Your task to perform on an android device: Open notification settings Image 0: 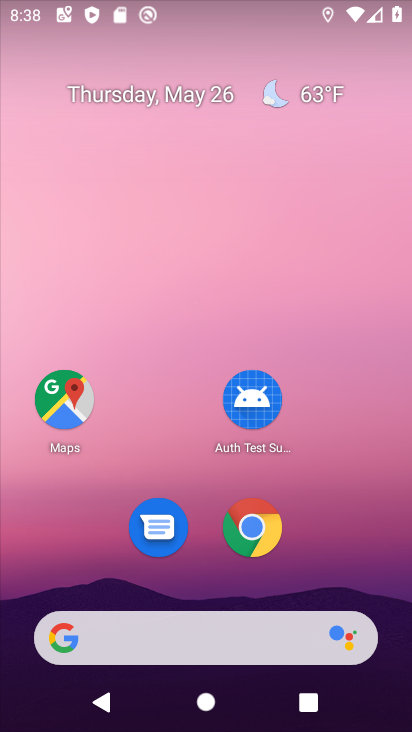
Step 0: drag from (374, 472) to (410, 508)
Your task to perform on an android device: Open notification settings Image 1: 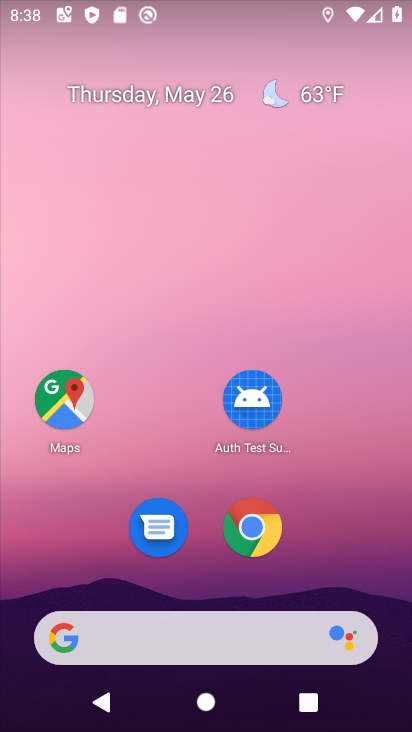
Step 1: drag from (344, 482) to (302, 46)
Your task to perform on an android device: Open notification settings Image 2: 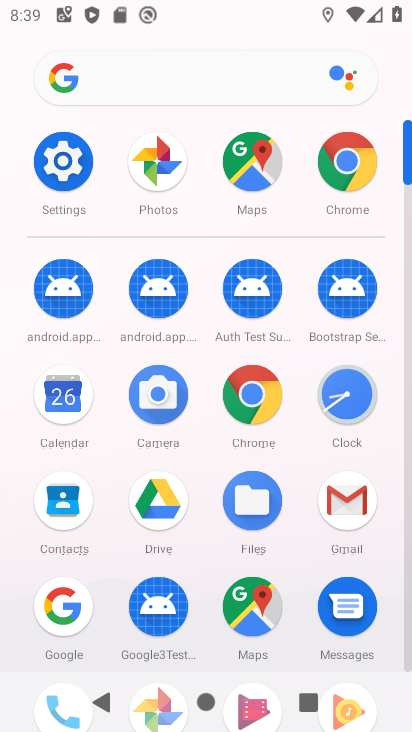
Step 2: click (43, 153)
Your task to perform on an android device: Open notification settings Image 3: 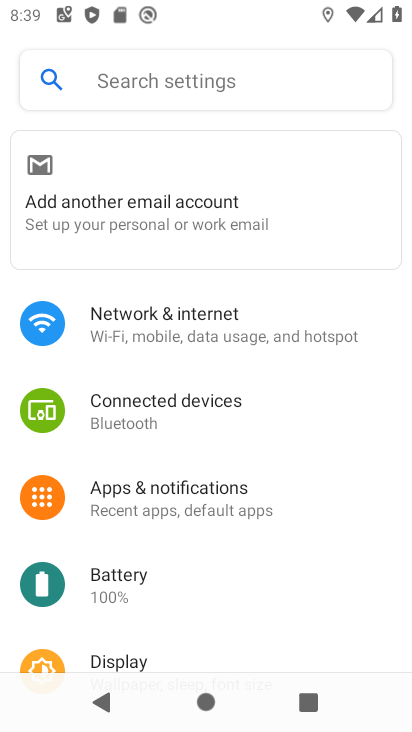
Step 3: click (178, 493)
Your task to perform on an android device: Open notification settings Image 4: 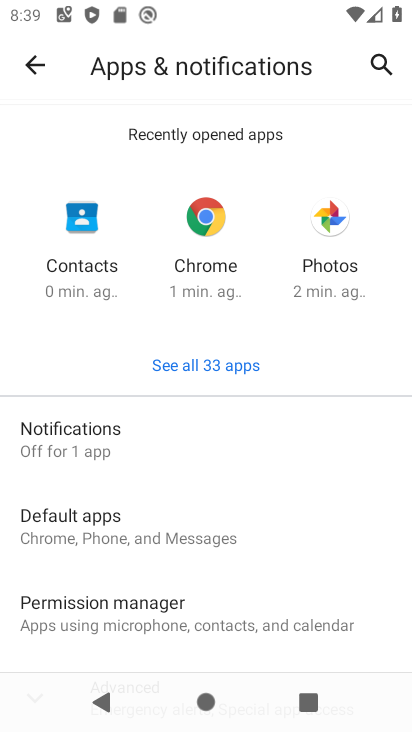
Step 4: click (75, 432)
Your task to perform on an android device: Open notification settings Image 5: 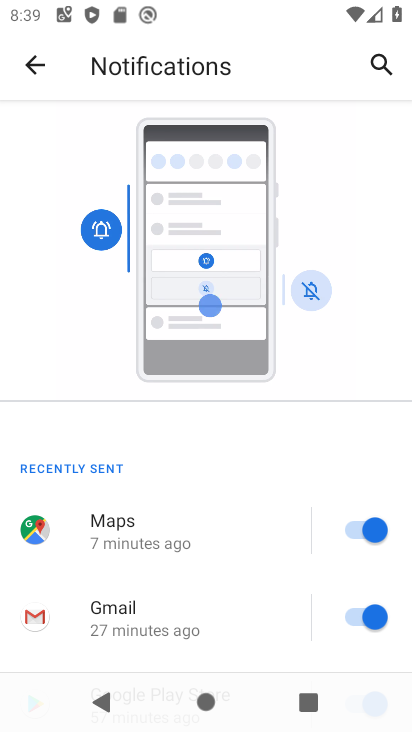
Step 5: task complete